Your task to perform on an android device: turn on showing notifications on the lock screen Image 0: 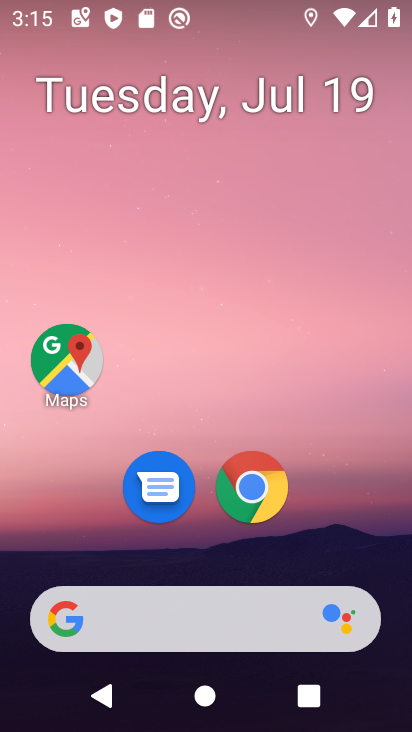
Step 0: drag from (187, 547) to (256, 10)
Your task to perform on an android device: turn on showing notifications on the lock screen Image 1: 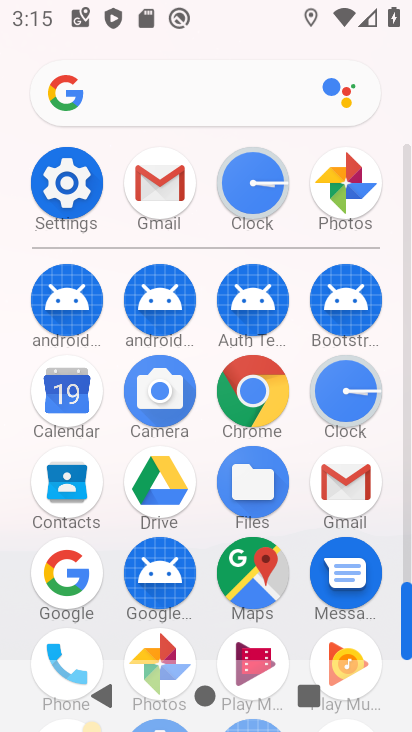
Step 1: click (70, 175)
Your task to perform on an android device: turn on showing notifications on the lock screen Image 2: 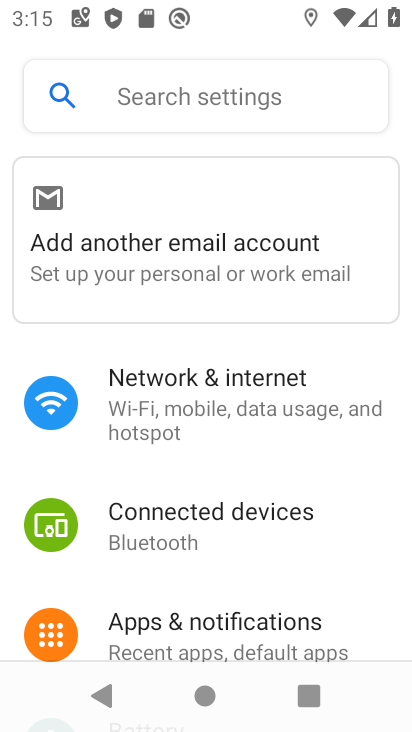
Step 2: click (167, 611)
Your task to perform on an android device: turn on showing notifications on the lock screen Image 3: 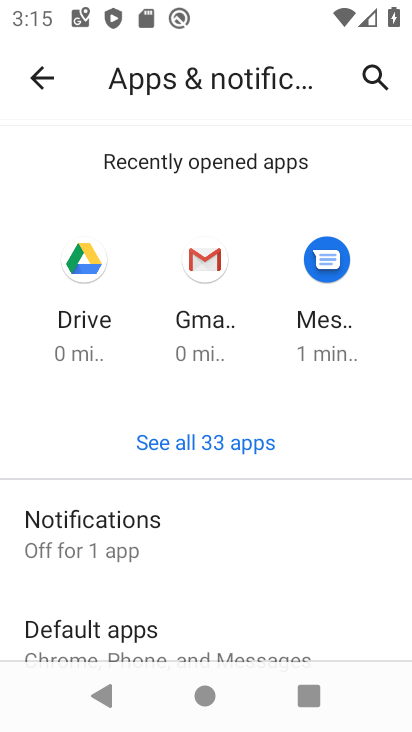
Step 3: click (149, 536)
Your task to perform on an android device: turn on showing notifications on the lock screen Image 4: 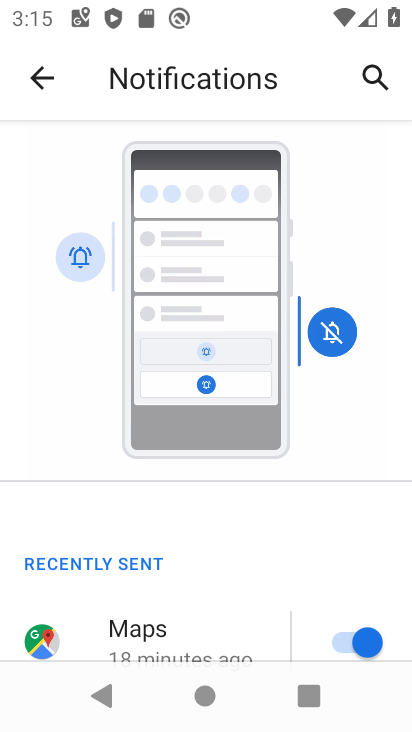
Step 4: drag from (143, 654) to (300, 22)
Your task to perform on an android device: turn on showing notifications on the lock screen Image 5: 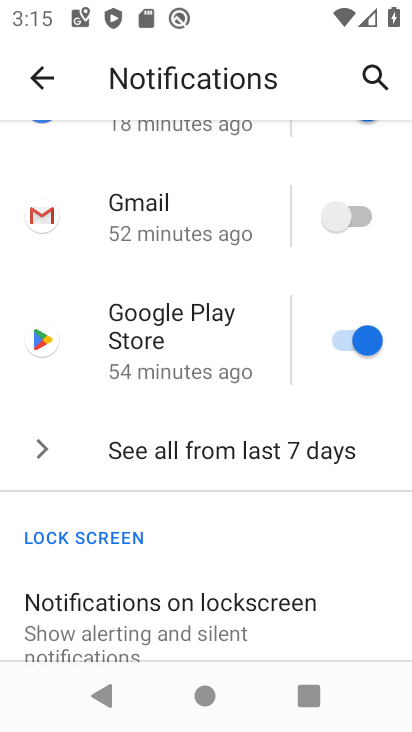
Step 5: click (153, 613)
Your task to perform on an android device: turn on showing notifications on the lock screen Image 6: 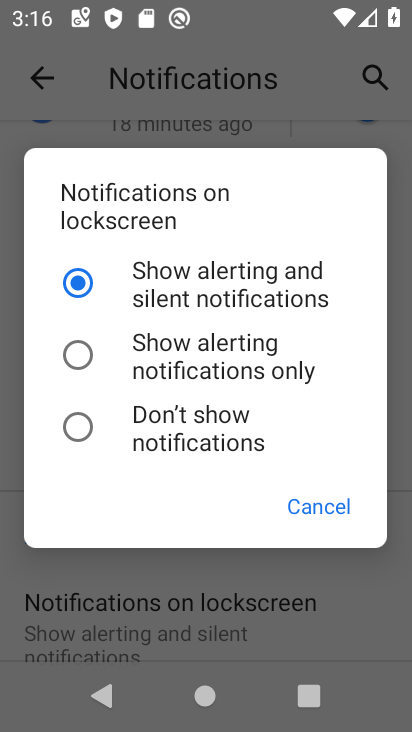
Step 6: click (72, 283)
Your task to perform on an android device: turn on showing notifications on the lock screen Image 7: 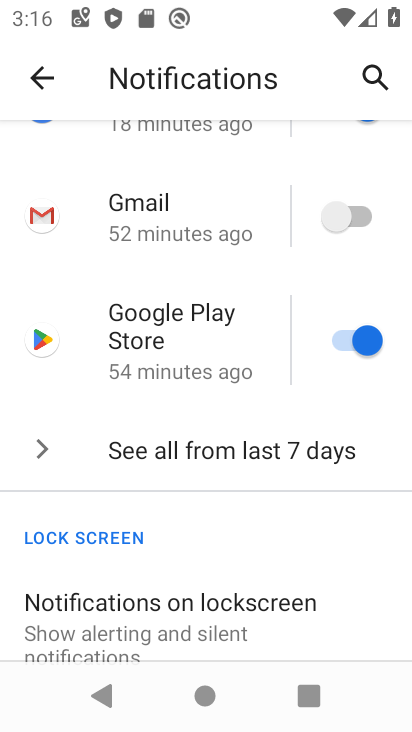
Step 7: task complete